Your task to perform on an android device: turn on airplane mode Image 0: 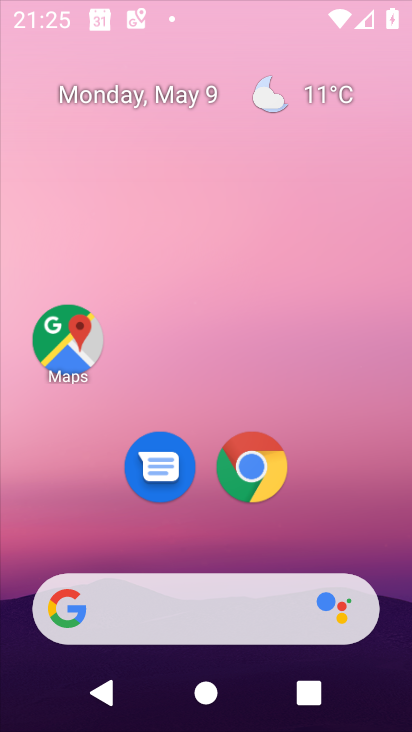
Step 0: click (347, 185)
Your task to perform on an android device: turn on airplane mode Image 1: 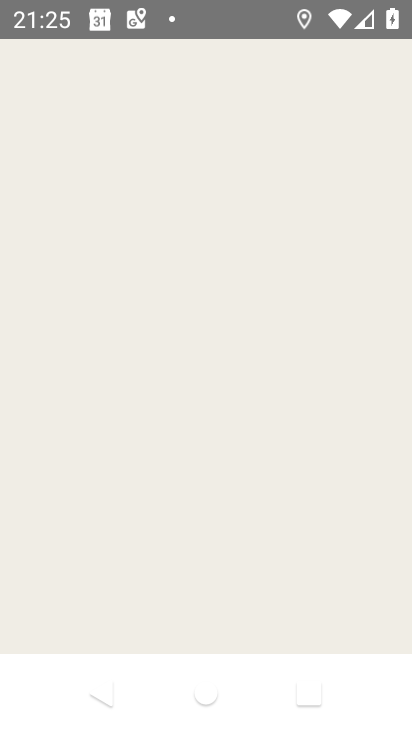
Step 1: drag from (298, 496) to (291, 342)
Your task to perform on an android device: turn on airplane mode Image 2: 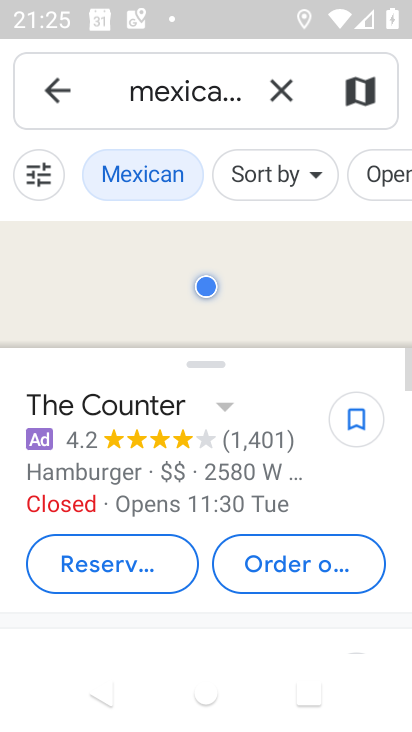
Step 2: press home button
Your task to perform on an android device: turn on airplane mode Image 3: 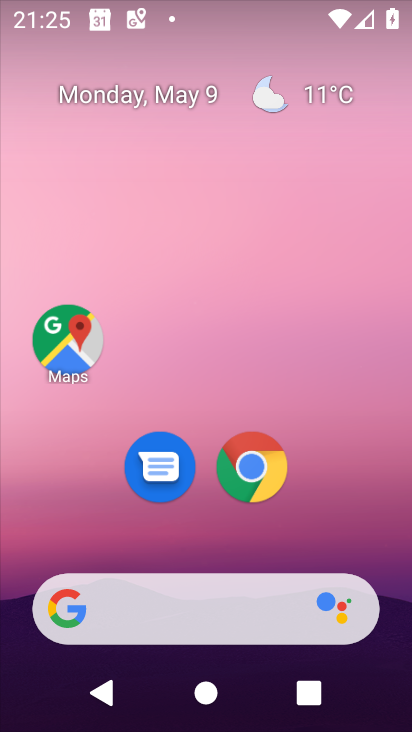
Step 3: drag from (379, 294) to (384, 233)
Your task to perform on an android device: turn on airplane mode Image 4: 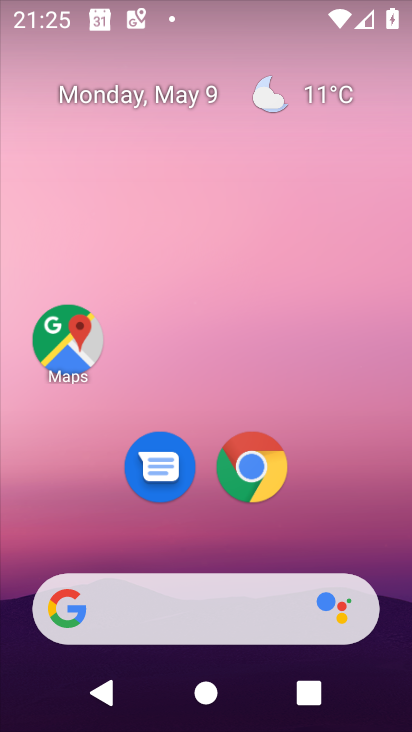
Step 4: drag from (276, 518) to (318, 290)
Your task to perform on an android device: turn on airplane mode Image 5: 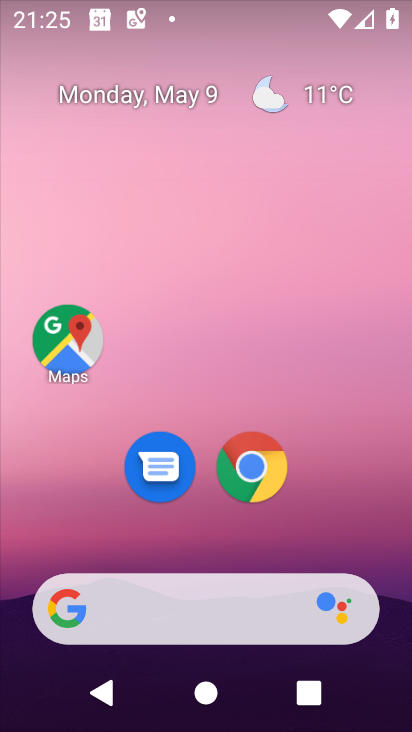
Step 5: drag from (320, 582) to (311, 222)
Your task to perform on an android device: turn on airplane mode Image 6: 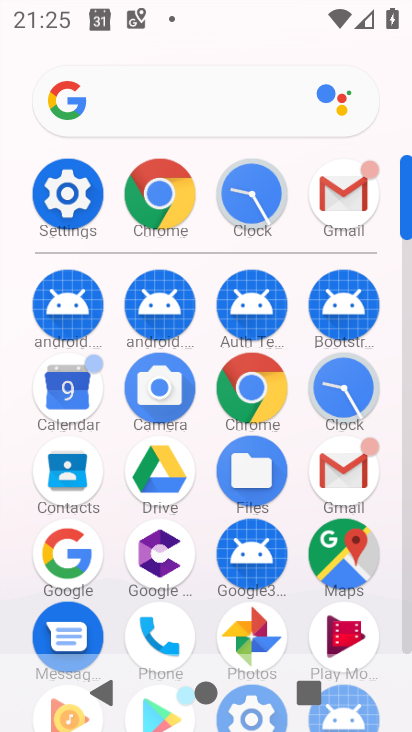
Step 6: click (78, 187)
Your task to perform on an android device: turn on airplane mode Image 7: 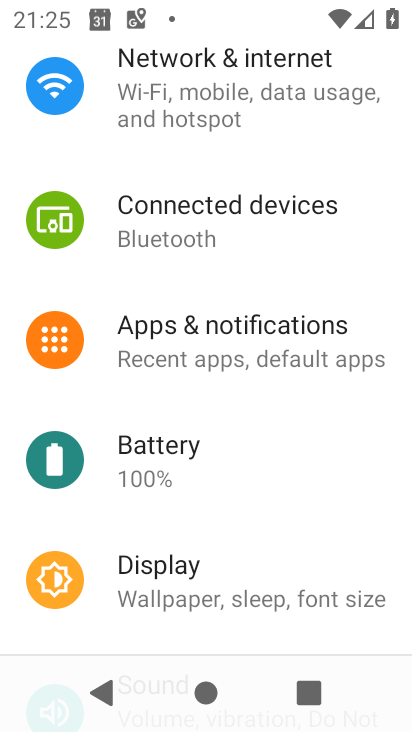
Step 7: drag from (195, 80) to (211, 278)
Your task to perform on an android device: turn on airplane mode Image 8: 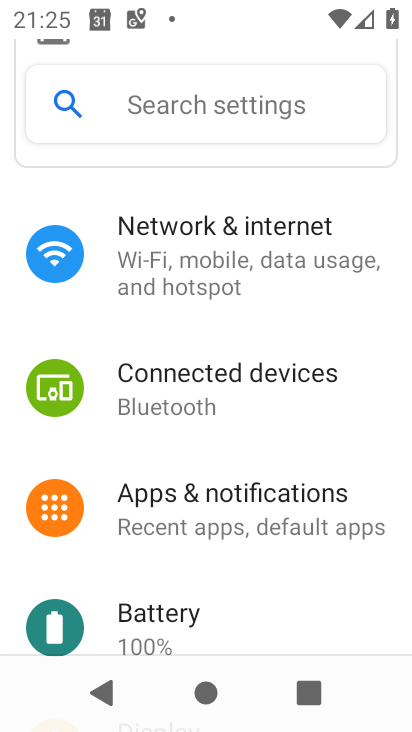
Step 8: click (197, 239)
Your task to perform on an android device: turn on airplane mode Image 9: 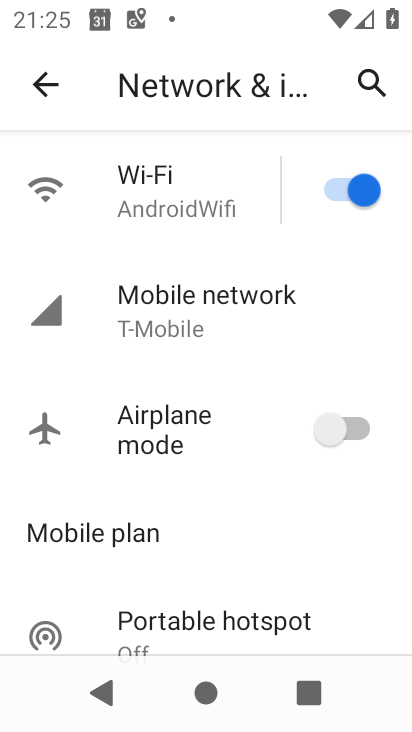
Step 9: click (323, 427)
Your task to perform on an android device: turn on airplane mode Image 10: 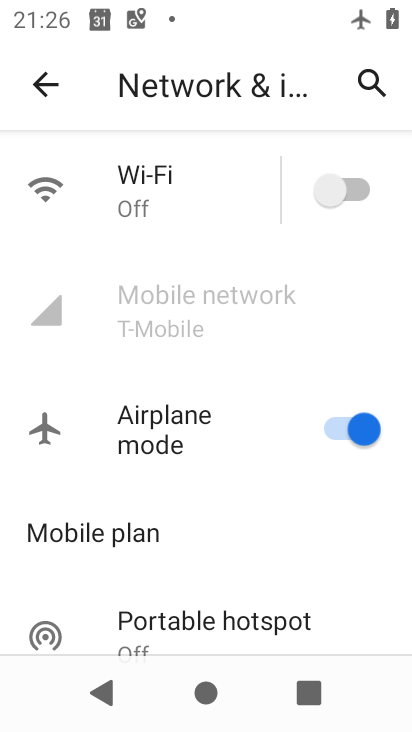
Step 10: task complete